Your task to perform on an android device: Search for seafood restaurants on Google Maps Image 0: 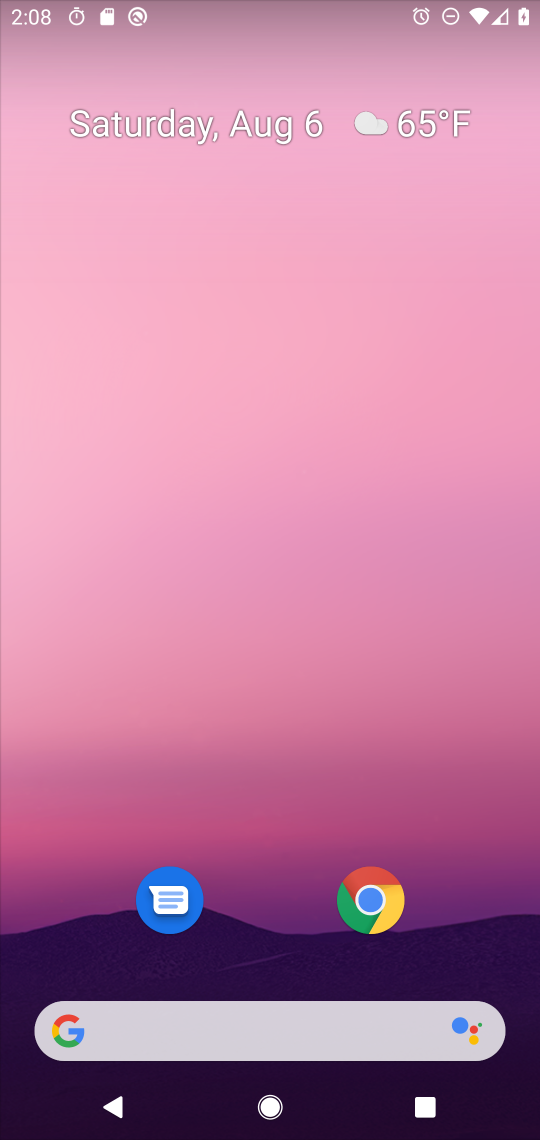
Step 0: drag from (278, 802) to (291, 207)
Your task to perform on an android device: Search for seafood restaurants on Google Maps Image 1: 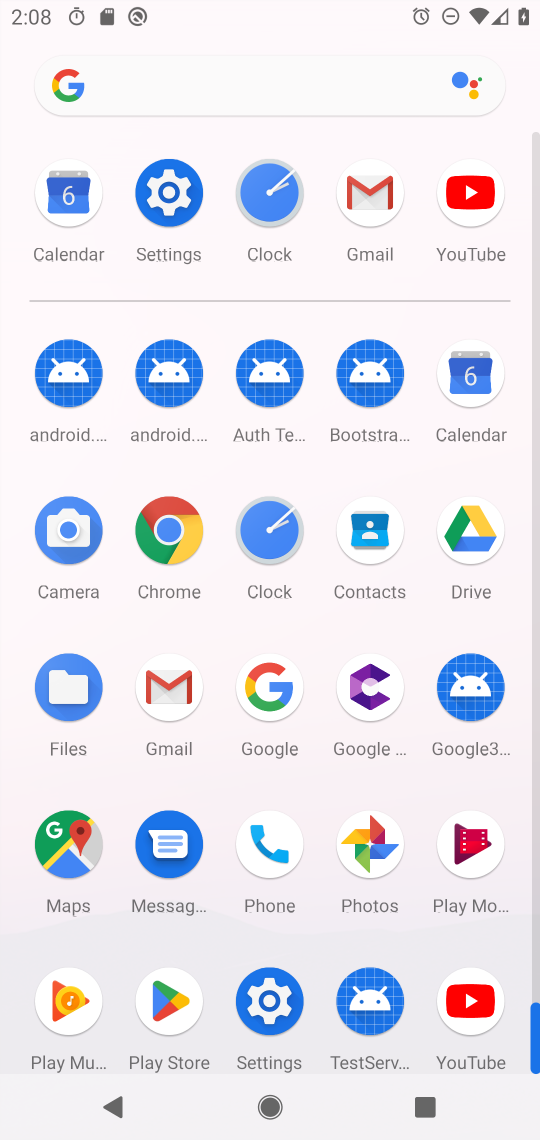
Step 1: click (70, 835)
Your task to perform on an android device: Search for seafood restaurants on Google Maps Image 2: 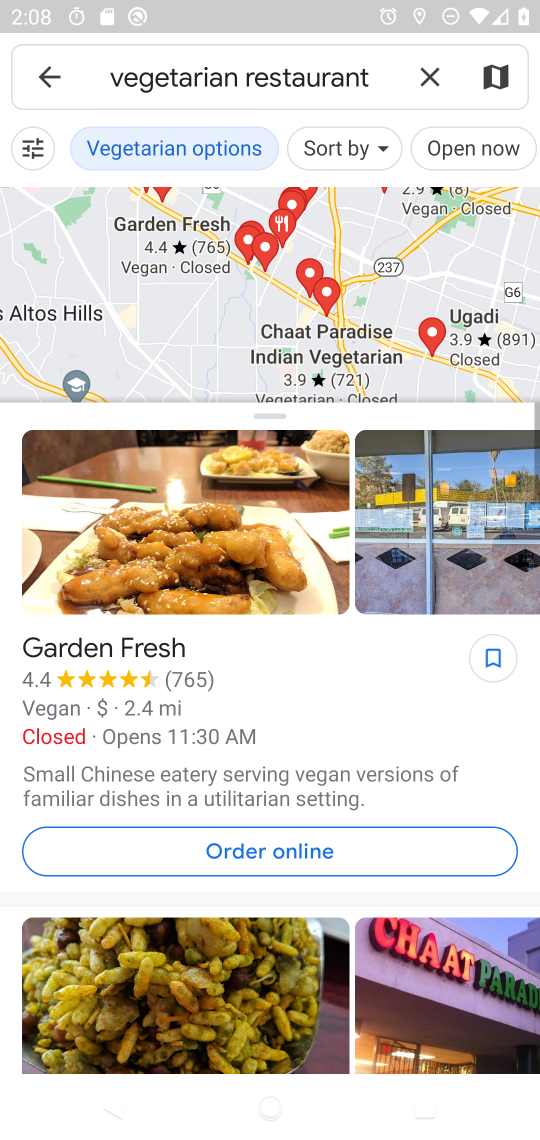
Step 2: click (436, 72)
Your task to perform on an android device: Search for seafood restaurants on Google Maps Image 3: 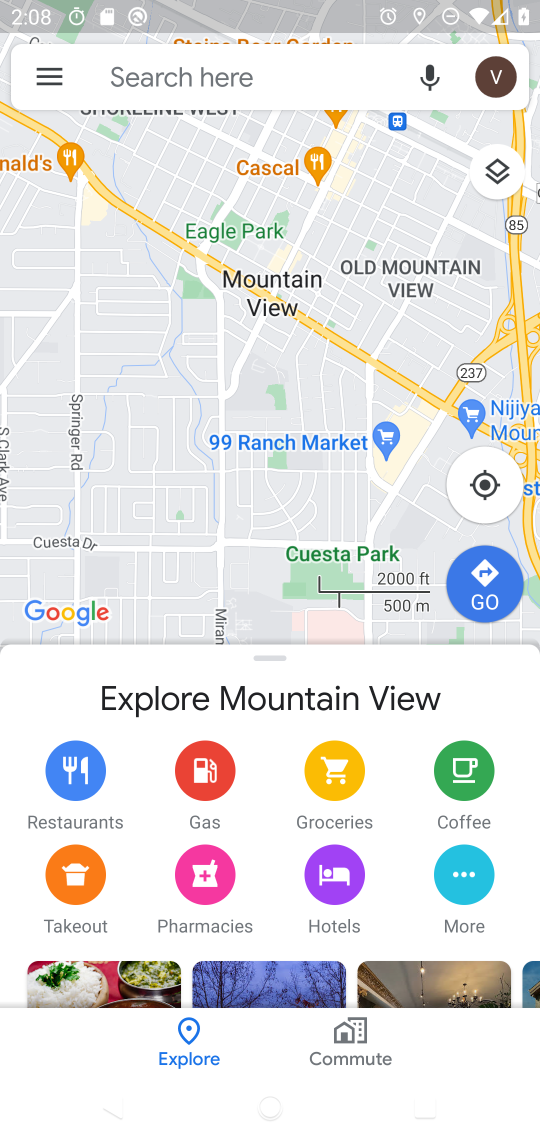
Step 3: click (289, 82)
Your task to perform on an android device: Search for seafood restaurants on Google Maps Image 4: 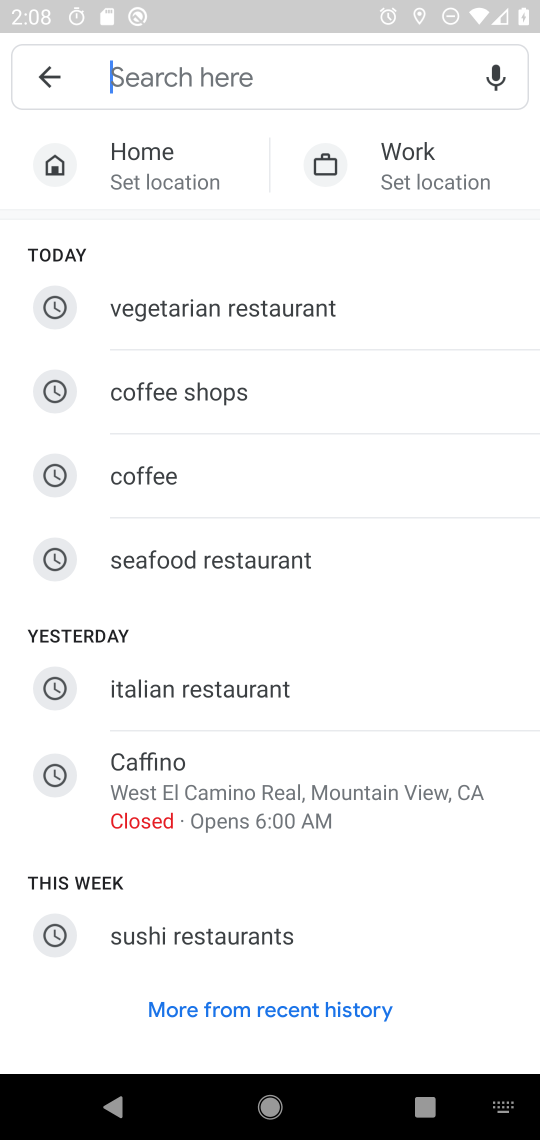
Step 4: type "SEAFOOD RESTAURANTS"
Your task to perform on an android device: Search for seafood restaurants on Google Maps Image 5: 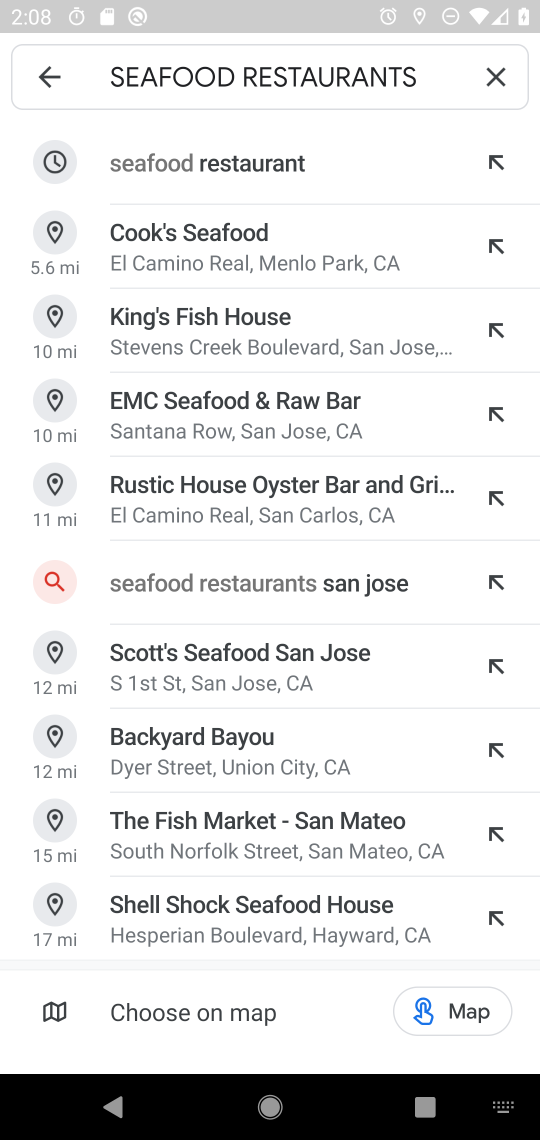
Step 5: click (229, 164)
Your task to perform on an android device: Search for seafood restaurants on Google Maps Image 6: 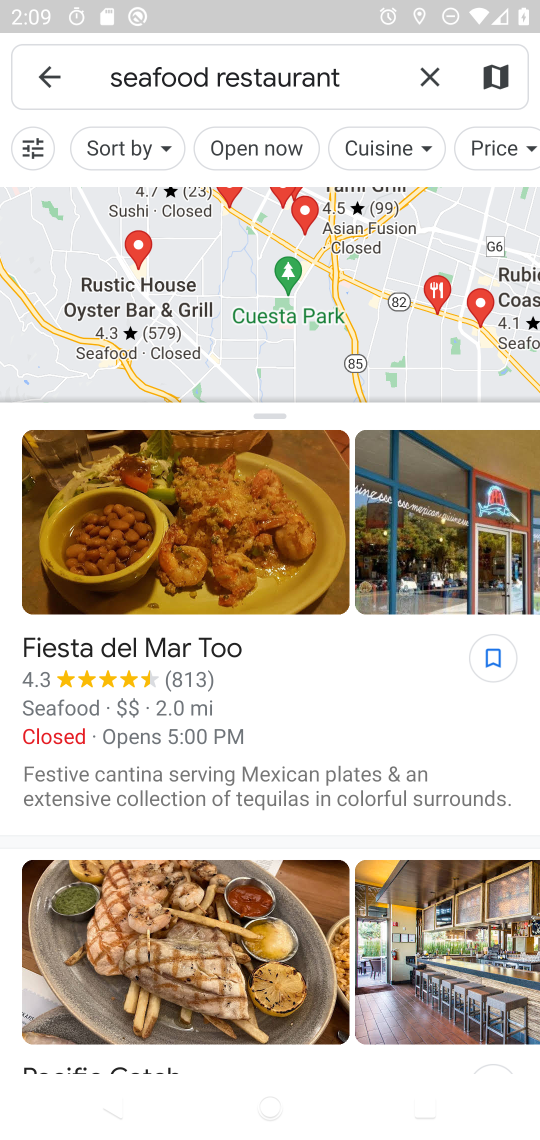
Step 6: task complete